Your task to perform on an android device: empty trash in the gmail app Image 0: 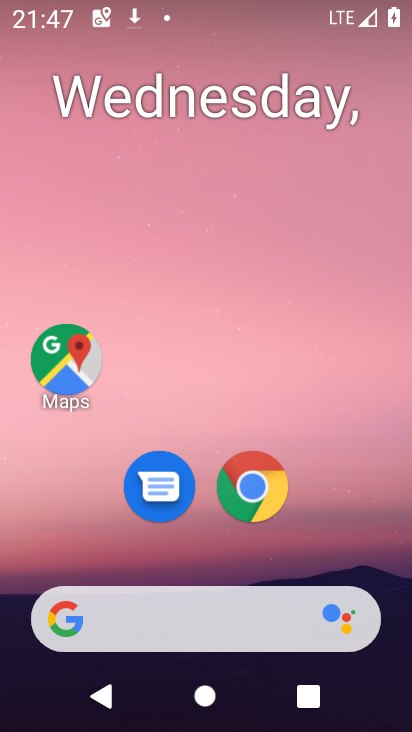
Step 0: drag from (170, 576) to (272, 16)
Your task to perform on an android device: empty trash in the gmail app Image 1: 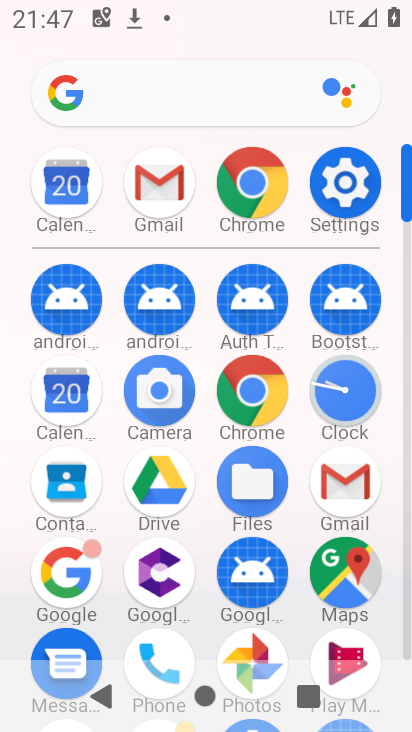
Step 1: click (159, 191)
Your task to perform on an android device: empty trash in the gmail app Image 2: 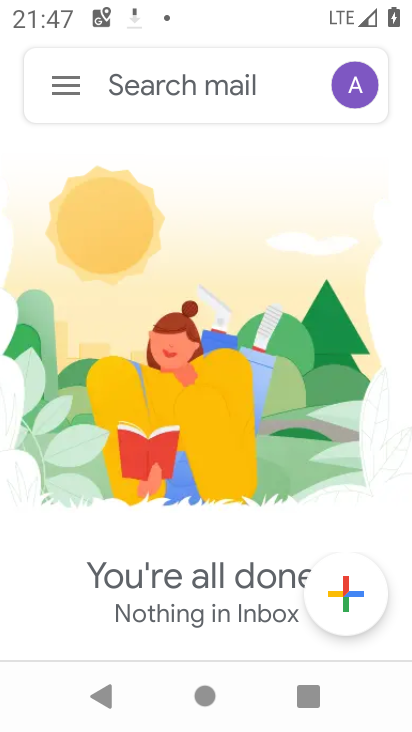
Step 2: click (69, 72)
Your task to perform on an android device: empty trash in the gmail app Image 3: 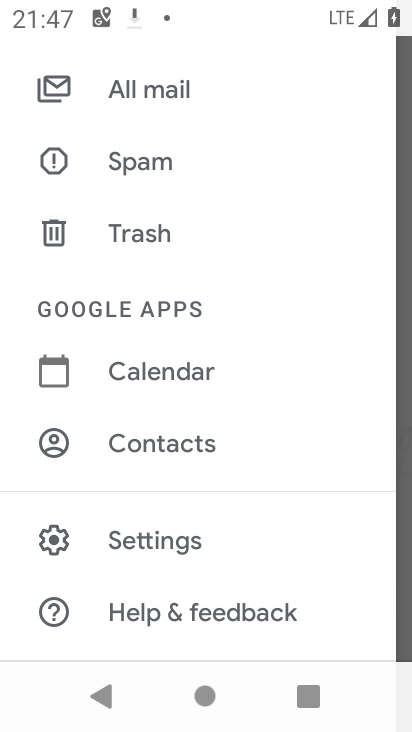
Step 3: click (152, 235)
Your task to perform on an android device: empty trash in the gmail app Image 4: 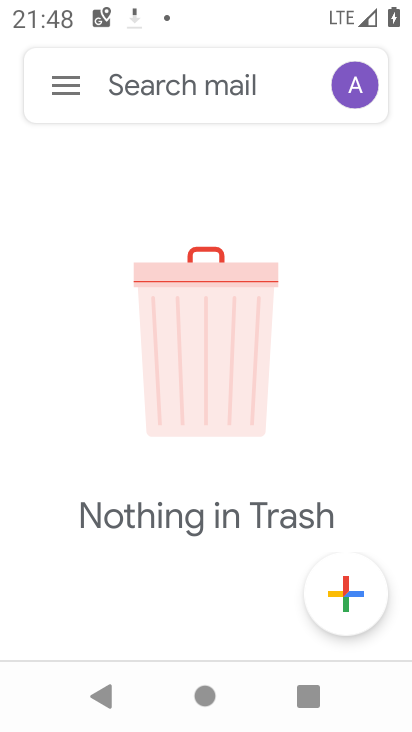
Step 4: task complete